Your task to perform on an android device: delete browsing data in the chrome app Image 0: 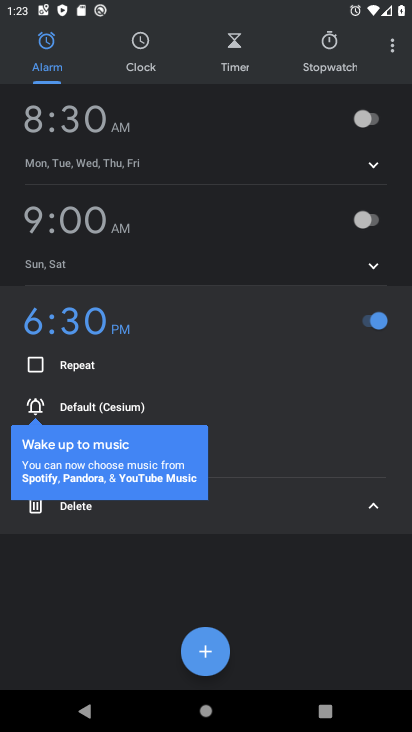
Step 0: press home button
Your task to perform on an android device: delete browsing data in the chrome app Image 1: 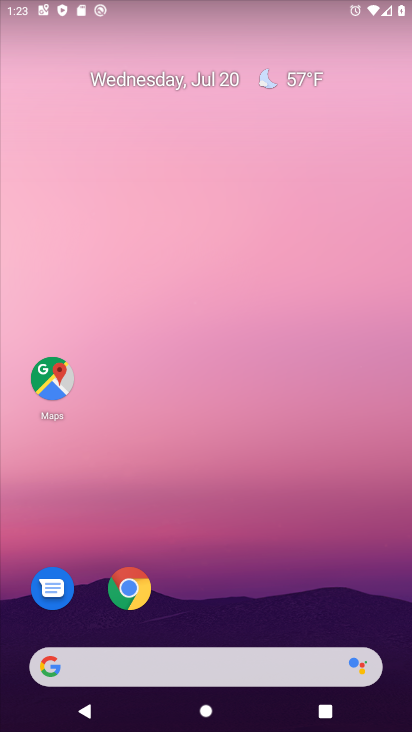
Step 1: drag from (49, 465) to (252, 147)
Your task to perform on an android device: delete browsing data in the chrome app Image 2: 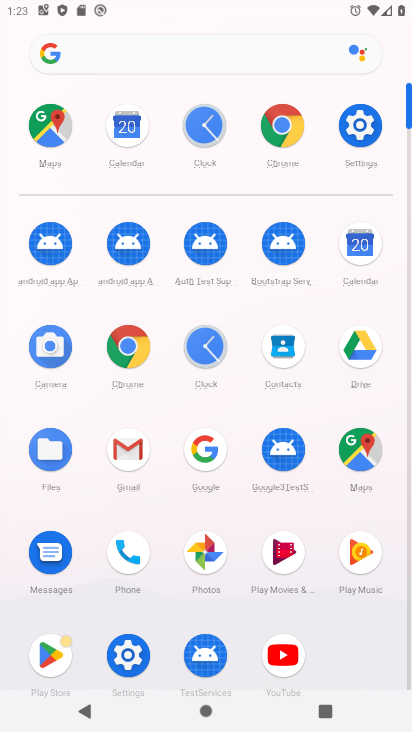
Step 2: click (283, 126)
Your task to perform on an android device: delete browsing data in the chrome app Image 3: 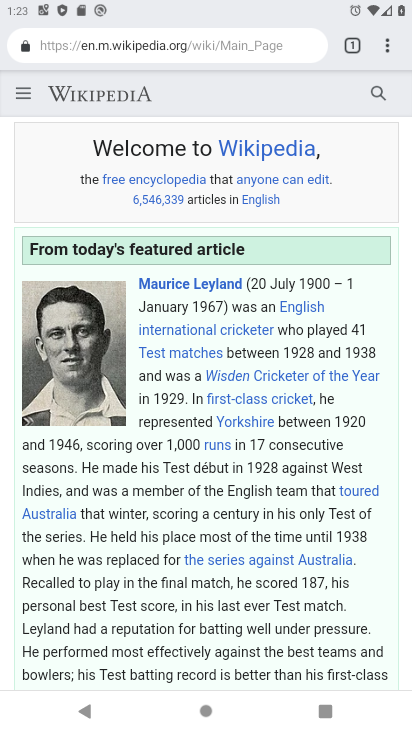
Step 3: click (388, 46)
Your task to perform on an android device: delete browsing data in the chrome app Image 4: 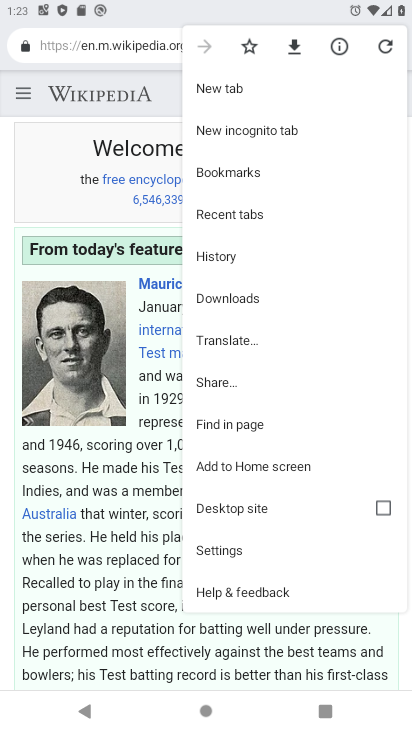
Step 4: click (224, 249)
Your task to perform on an android device: delete browsing data in the chrome app Image 5: 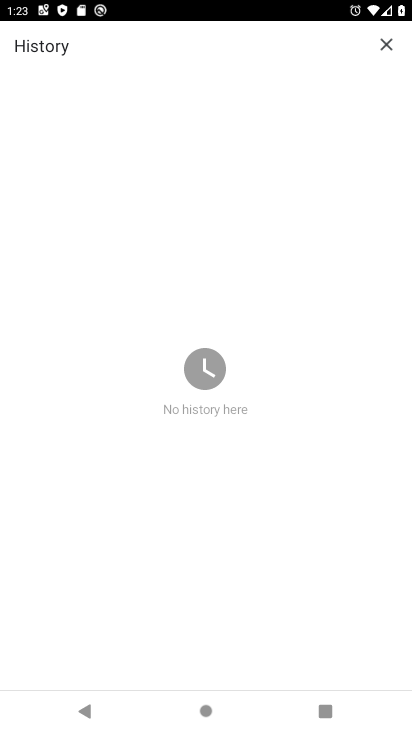
Step 5: task complete